Your task to perform on an android device: turn on priority inbox in the gmail app Image 0: 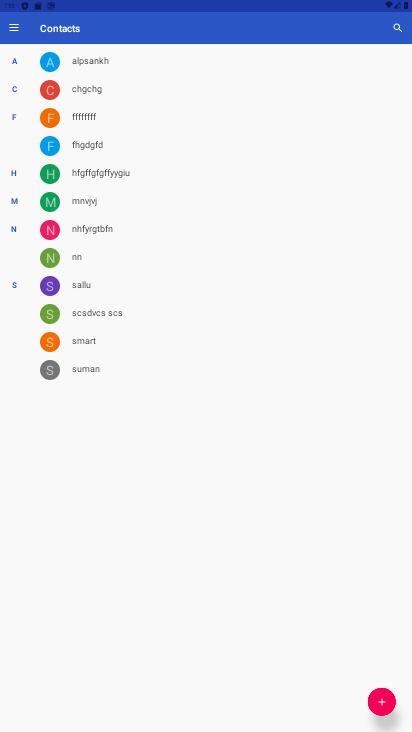
Step 0: press home button
Your task to perform on an android device: turn on priority inbox in the gmail app Image 1: 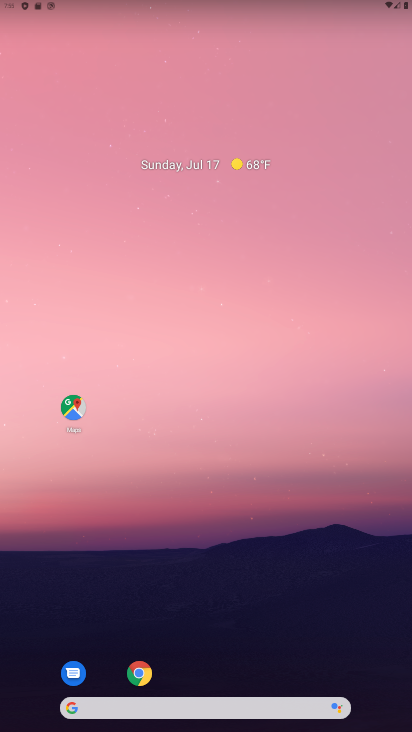
Step 1: drag from (183, 562) to (162, 27)
Your task to perform on an android device: turn on priority inbox in the gmail app Image 2: 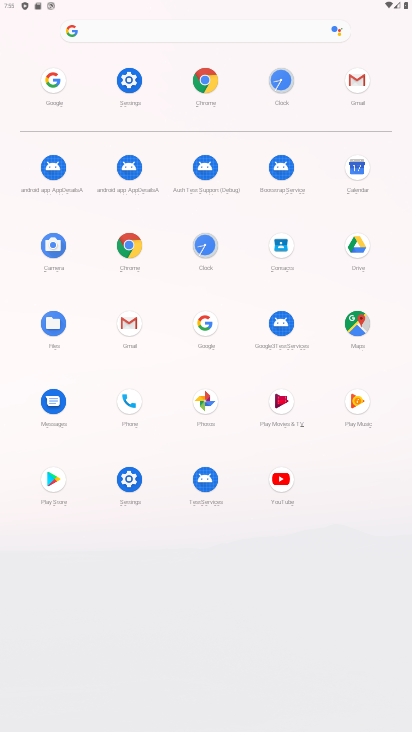
Step 2: click (364, 77)
Your task to perform on an android device: turn on priority inbox in the gmail app Image 3: 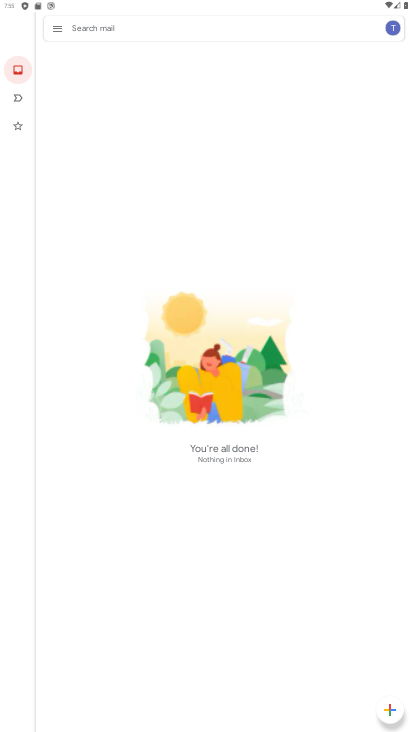
Step 3: click (53, 31)
Your task to perform on an android device: turn on priority inbox in the gmail app Image 4: 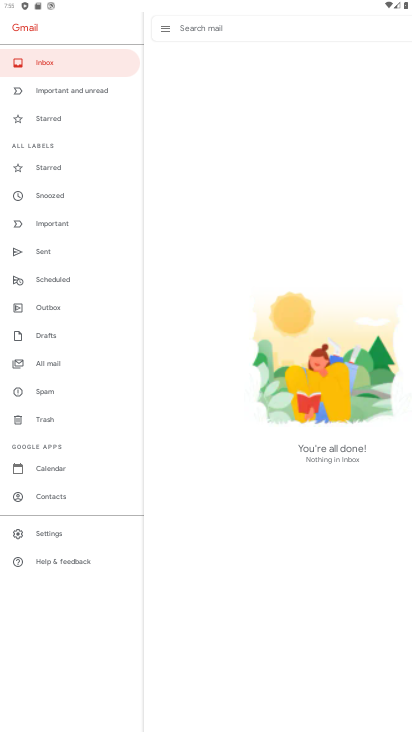
Step 4: click (26, 539)
Your task to perform on an android device: turn on priority inbox in the gmail app Image 5: 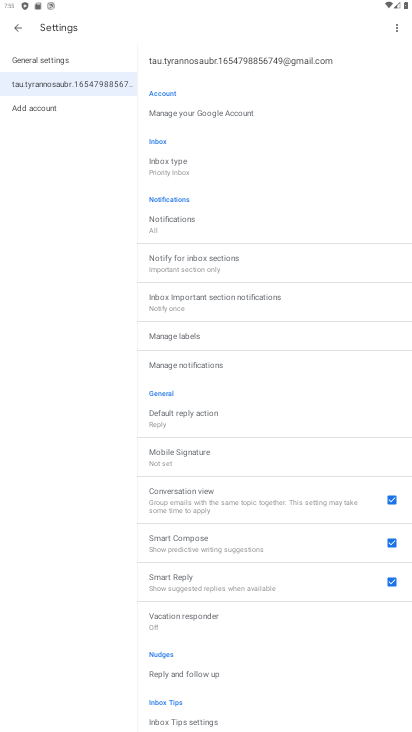
Step 5: click (171, 169)
Your task to perform on an android device: turn on priority inbox in the gmail app Image 6: 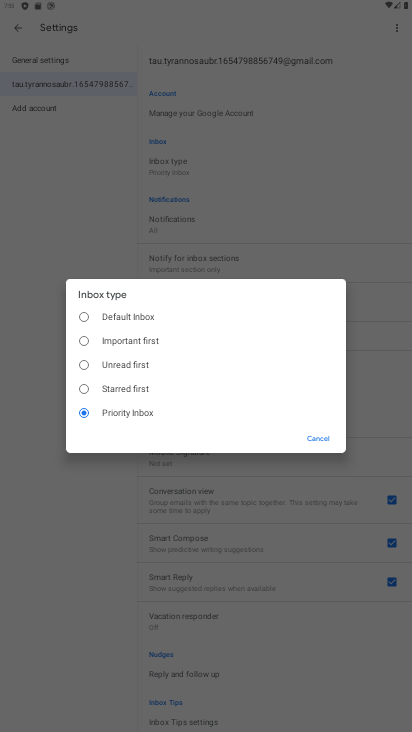
Step 6: task complete